Your task to perform on an android device: Go to privacy settings Image 0: 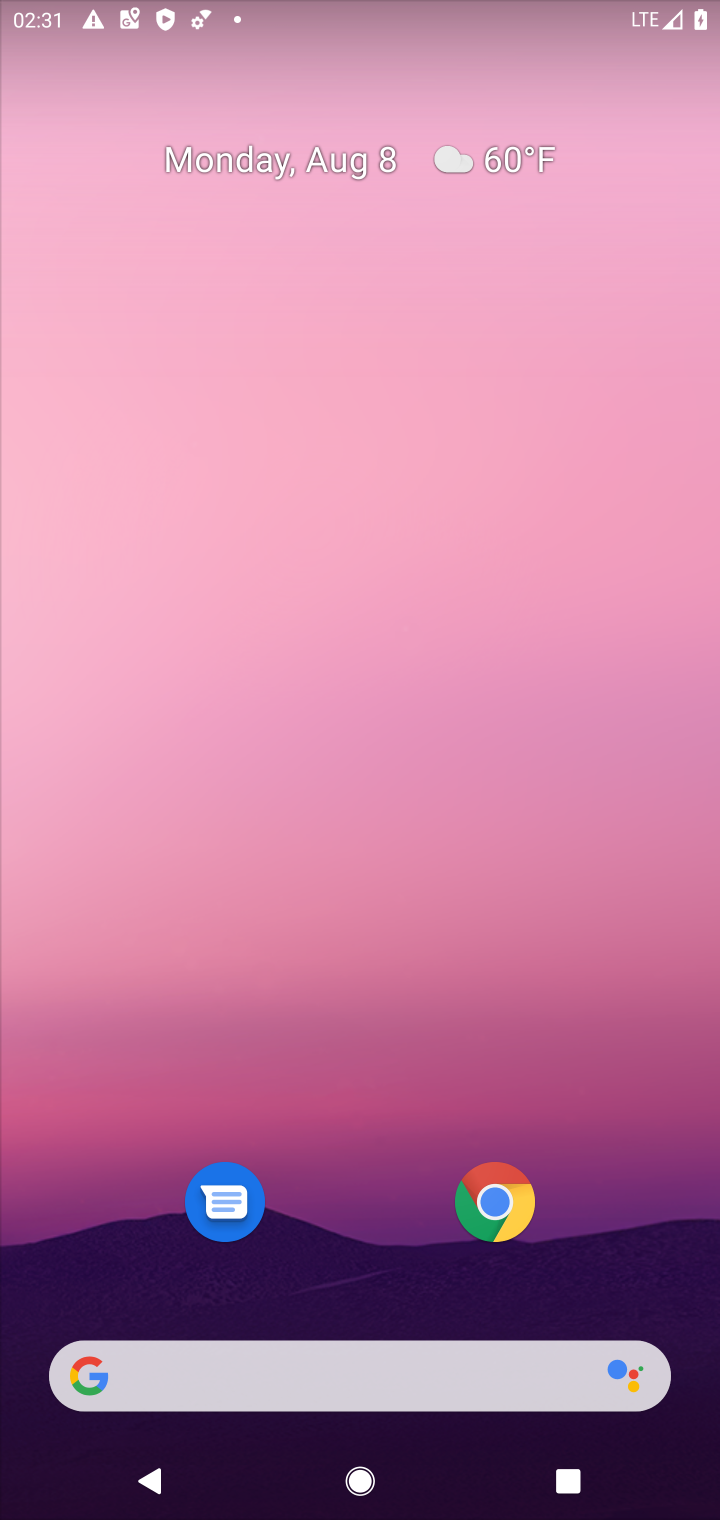
Step 0: drag from (387, 1033) to (408, 158)
Your task to perform on an android device: Go to privacy settings Image 1: 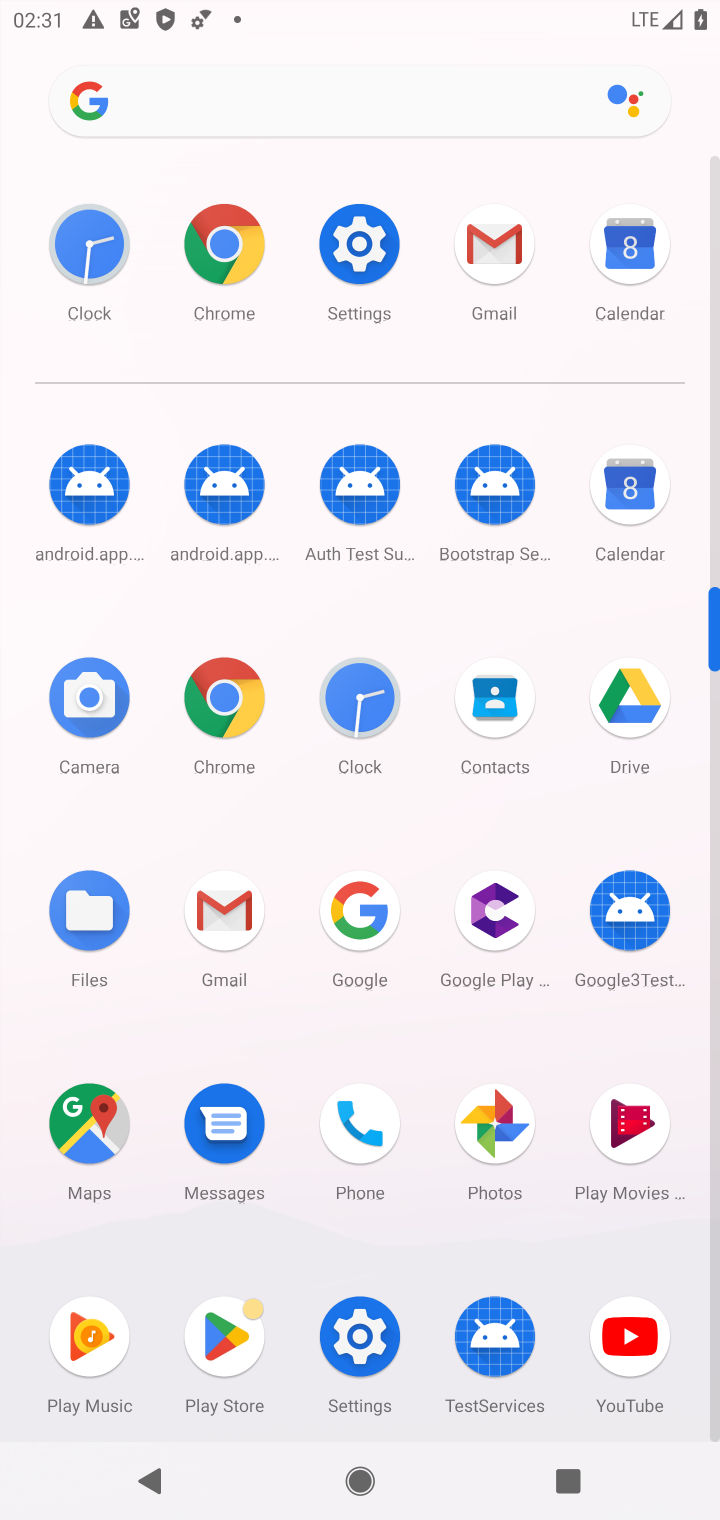
Step 1: click (350, 236)
Your task to perform on an android device: Go to privacy settings Image 2: 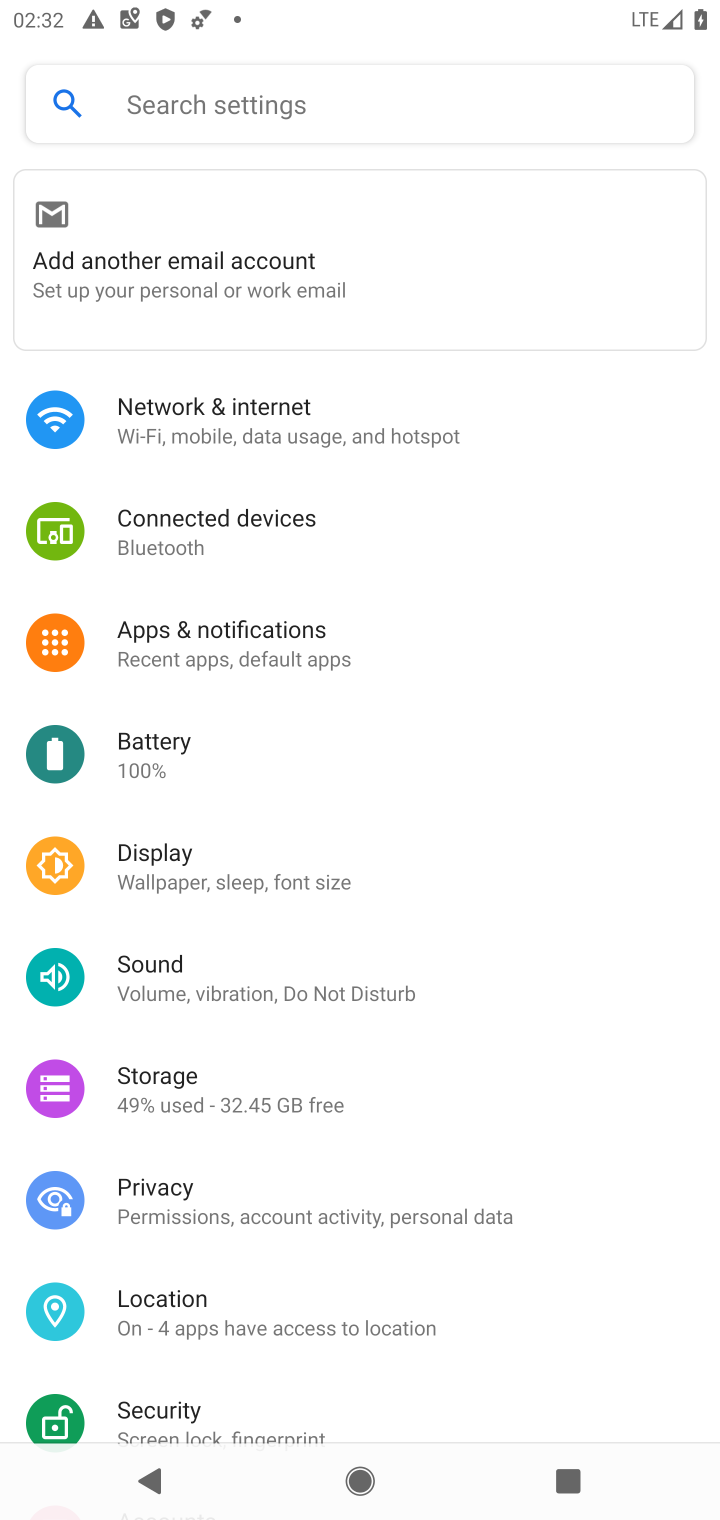
Step 2: click (140, 1215)
Your task to perform on an android device: Go to privacy settings Image 3: 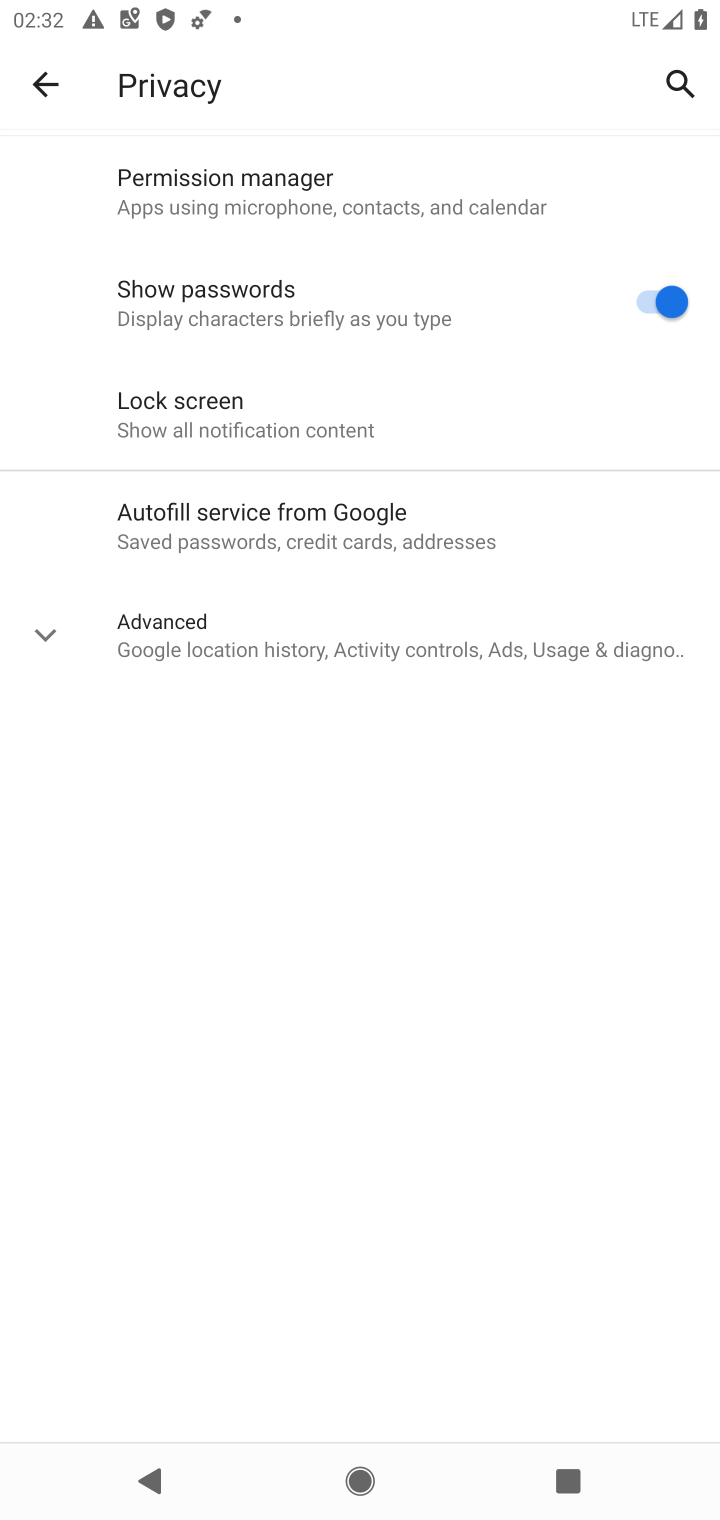
Step 3: task complete